Your task to perform on an android device: open app "eBay: The shopping marketplace" (install if not already installed), go to login, and select forgot password Image 0: 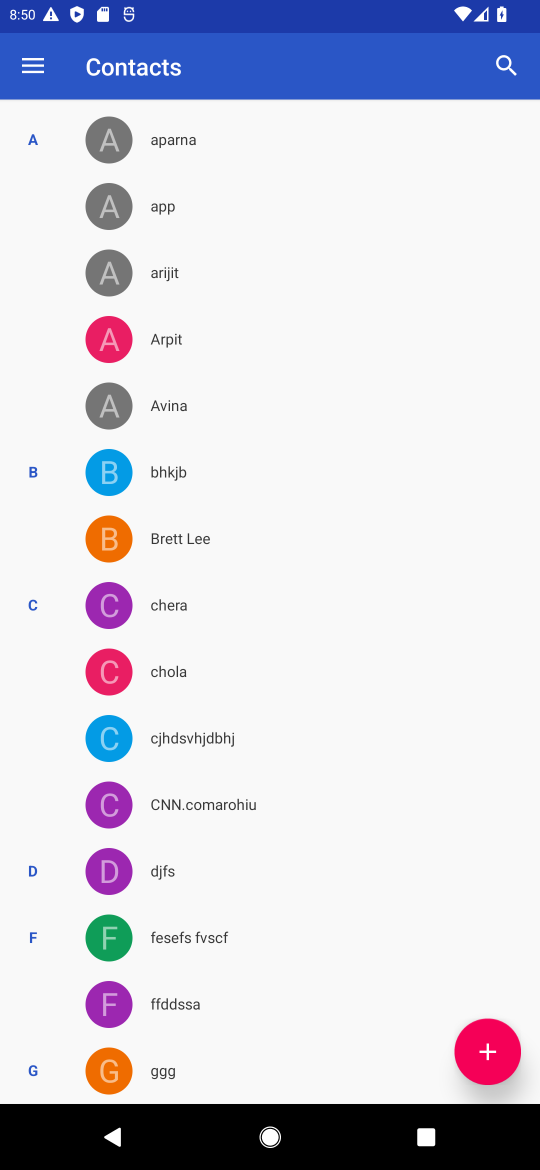
Step 0: click (517, 67)
Your task to perform on an android device: open app "eBay: The shopping marketplace" (install if not already installed), go to login, and select forgot password Image 1: 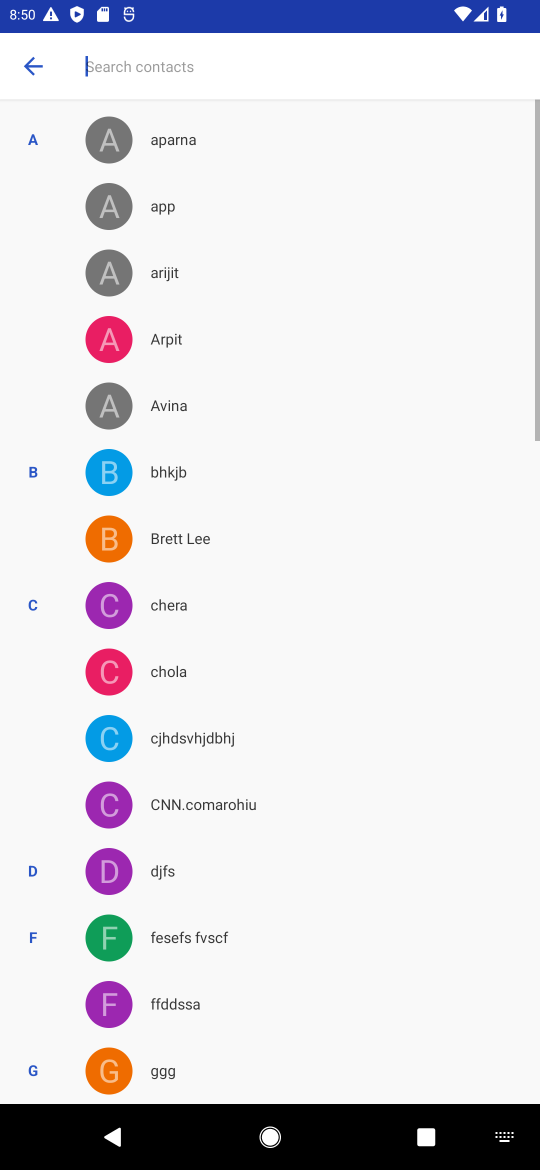
Step 1: click (504, 67)
Your task to perform on an android device: open app "eBay: The shopping marketplace" (install if not already installed), go to login, and select forgot password Image 2: 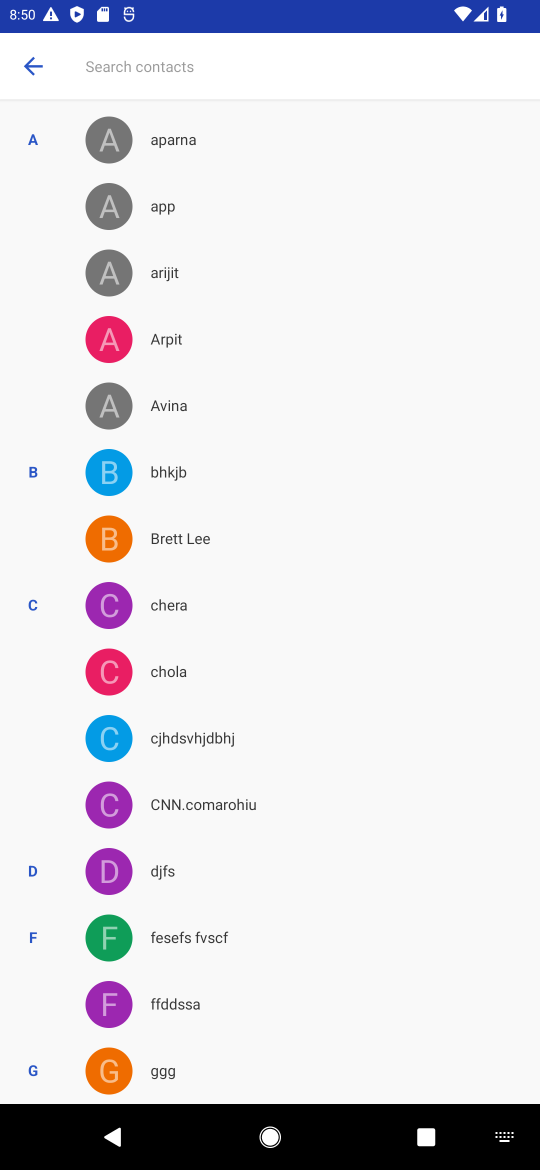
Step 2: press home button
Your task to perform on an android device: open app "eBay: The shopping marketplace" (install if not already installed), go to login, and select forgot password Image 3: 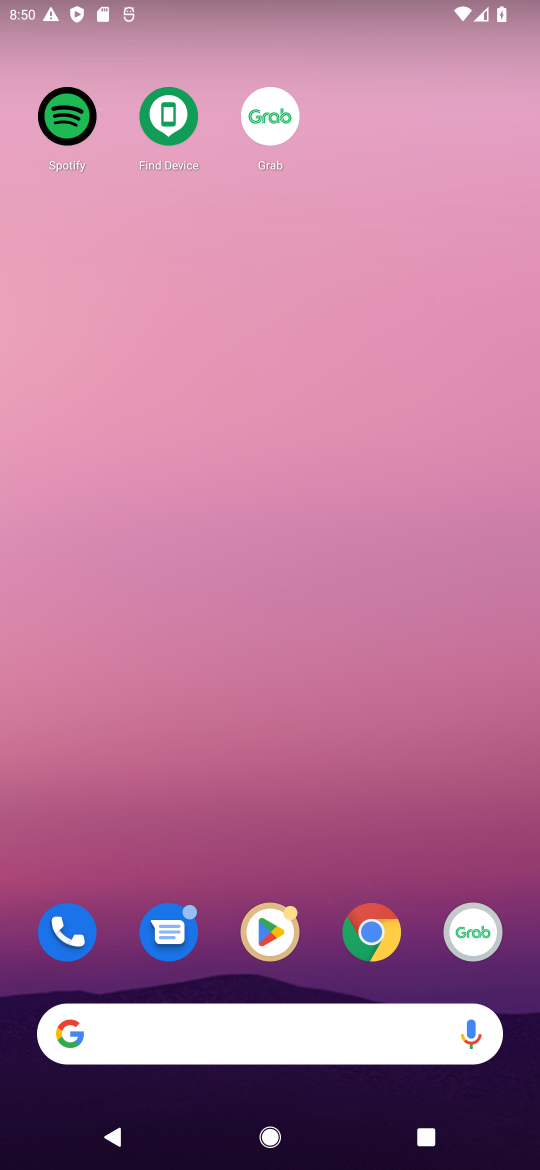
Step 3: click (360, 960)
Your task to perform on an android device: open app "eBay: The shopping marketplace" (install if not already installed), go to login, and select forgot password Image 4: 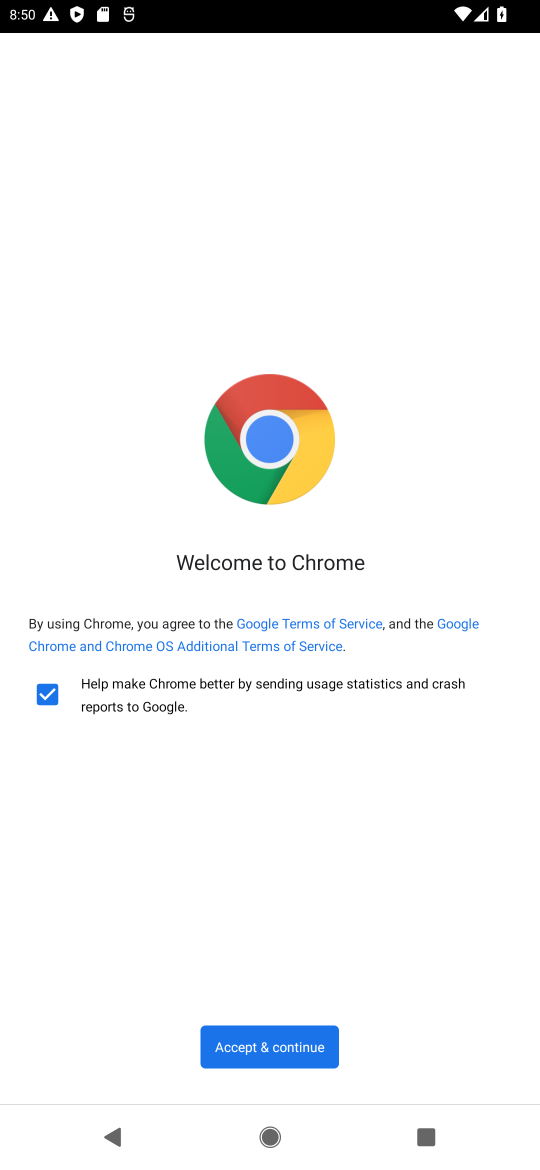
Step 4: press home button
Your task to perform on an android device: open app "eBay: The shopping marketplace" (install if not already installed), go to login, and select forgot password Image 5: 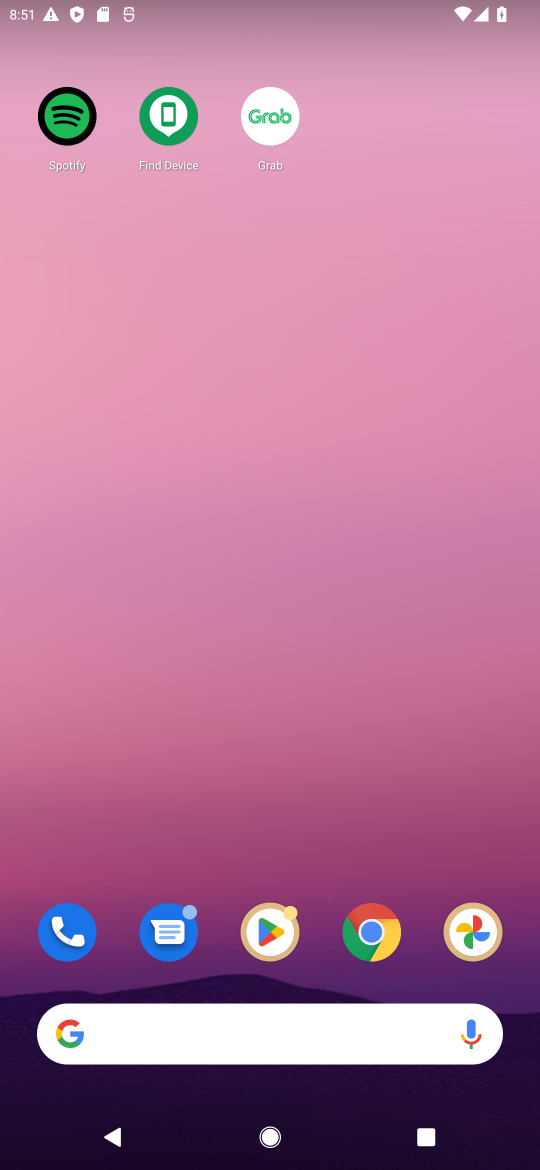
Step 5: click (272, 912)
Your task to perform on an android device: open app "eBay: The shopping marketplace" (install if not already installed), go to login, and select forgot password Image 6: 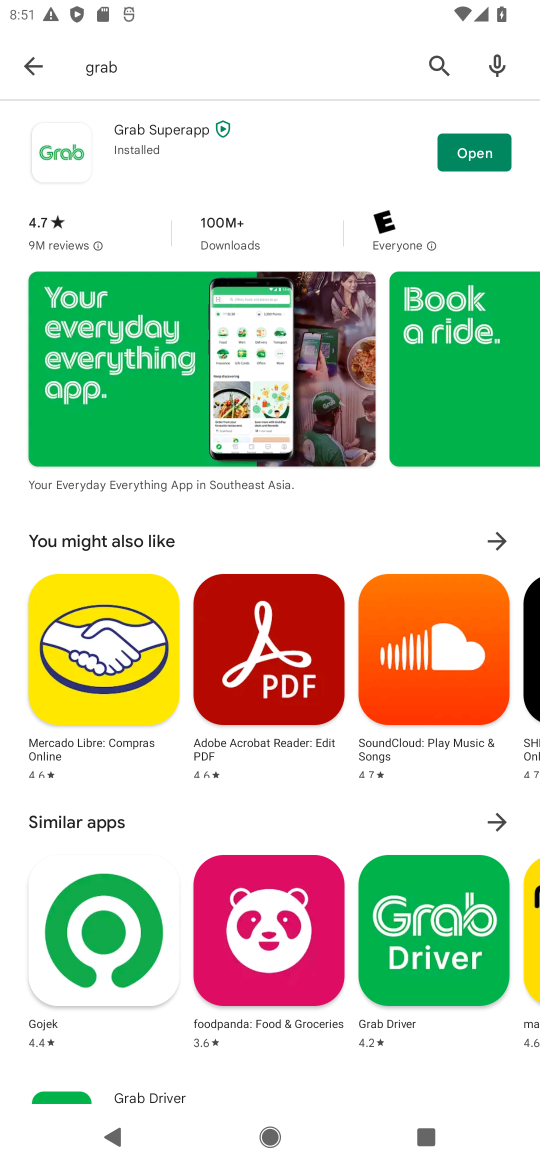
Step 6: click (419, 78)
Your task to perform on an android device: open app "eBay: The shopping marketplace" (install if not already installed), go to login, and select forgot password Image 7: 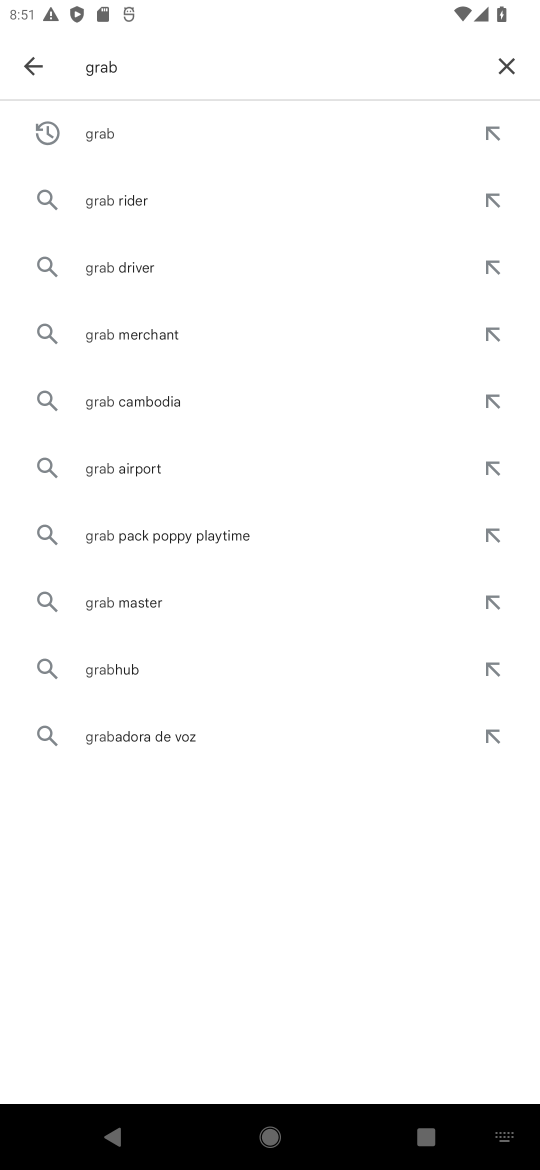
Step 7: click (508, 68)
Your task to perform on an android device: open app "eBay: The shopping marketplace" (install if not already installed), go to login, and select forgot password Image 8: 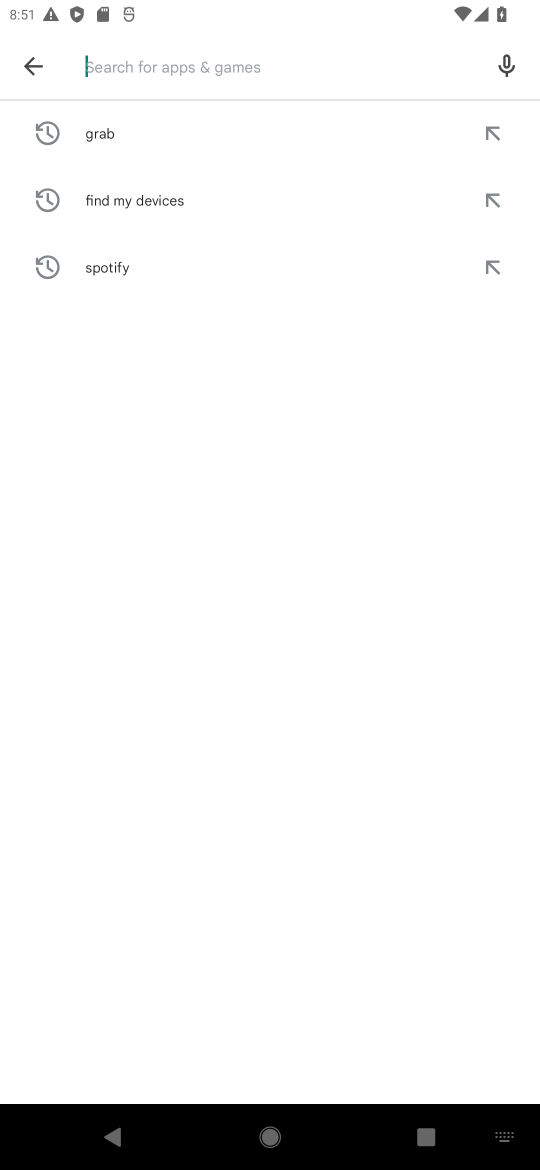
Step 8: type "ebay"
Your task to perform on an android device: open app "eBay: The shopping marketplace" (install if not already installed), go to login, and select forgot password Image 9: 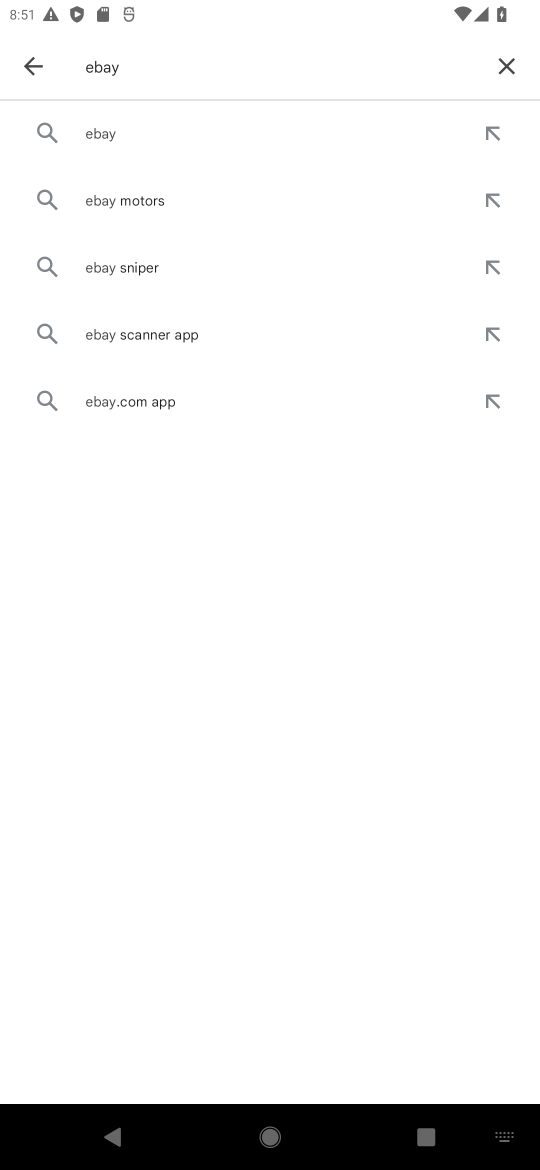
Step 9: click (123, 121)
Your task to perform on an android device: open app "eBay: The shopping marketplace" (install if not already installed), go to login, and select forgot password Image 10: 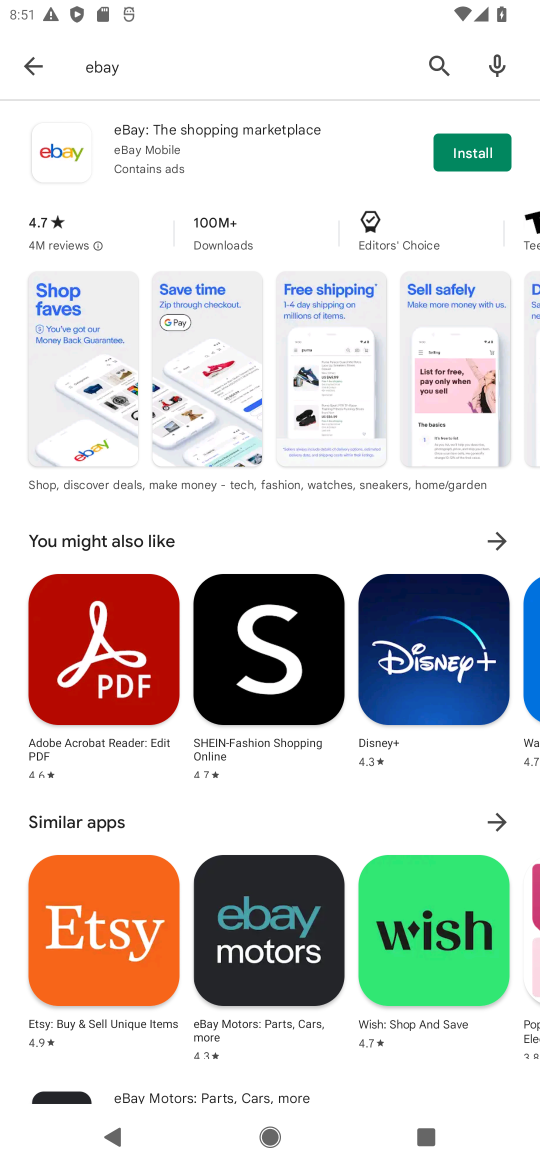
Step 10: click (445, 164)
Your task to perform on an android device: open app "eBay: The shopping marketplace" (install if not already installed), go to login, and select forgot password Image 11: 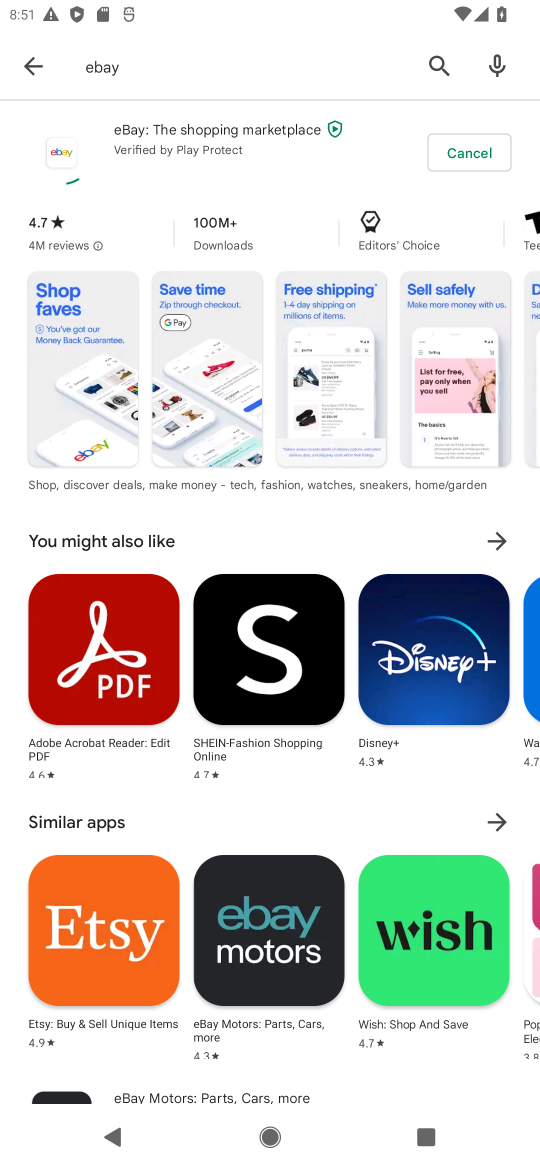
Step 11: task complete